Your task to perform on an android device: Search for electric lawnmowers on Home Depot Image 0: 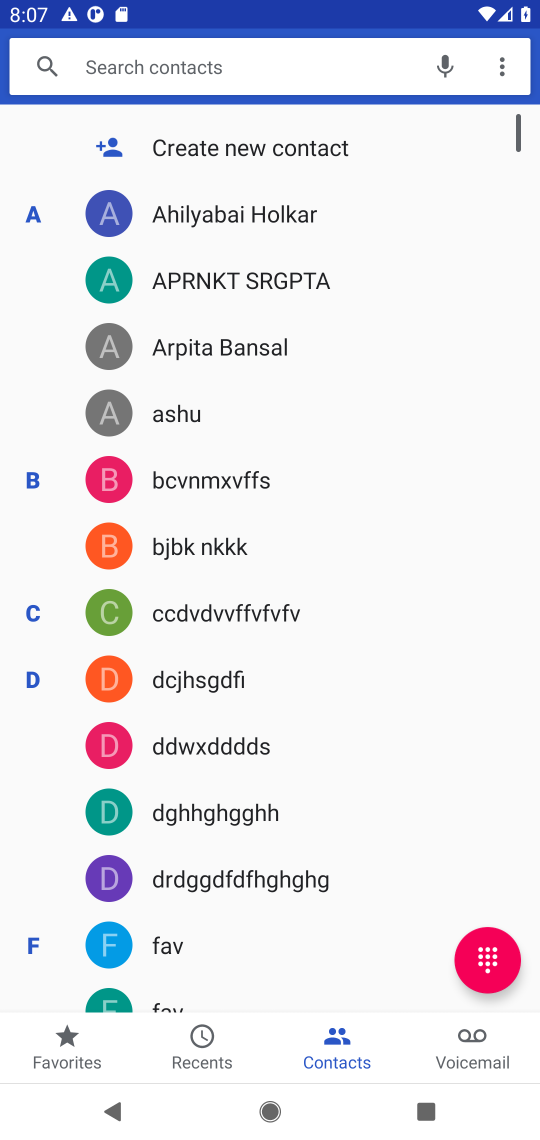
Step 0: click (246, 227)
Your task to perform on an android device: Search for electric lawnmowers on Home Depot Image 1: 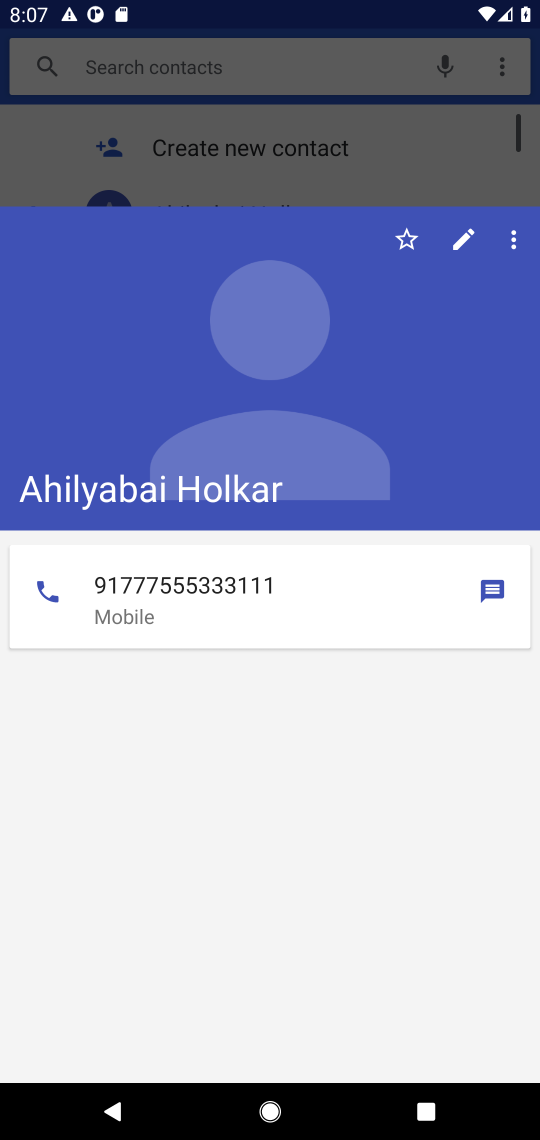
Step 1: click (410, 249)
Your task to perform on an android device: Search for electric lawnmowers on Home Depot Image 2: 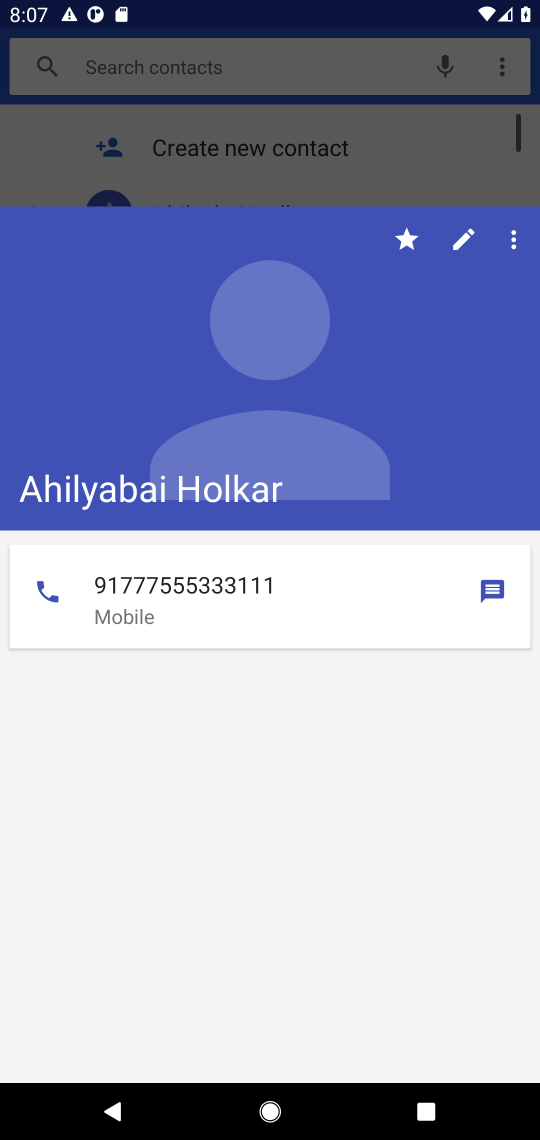
Step 2: task complete